Your task to perform on an android device: turn off airplane mode Image 0: 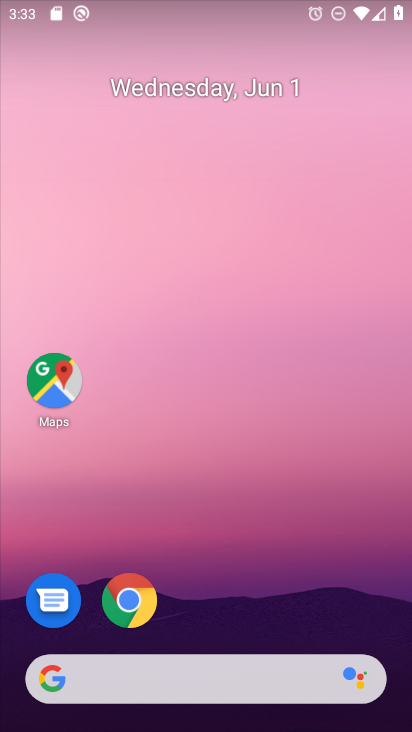
Step 0: drag from (192, 618) to (173, 266)
Your task to perform on an android device: turn off airplane mode Image 1: 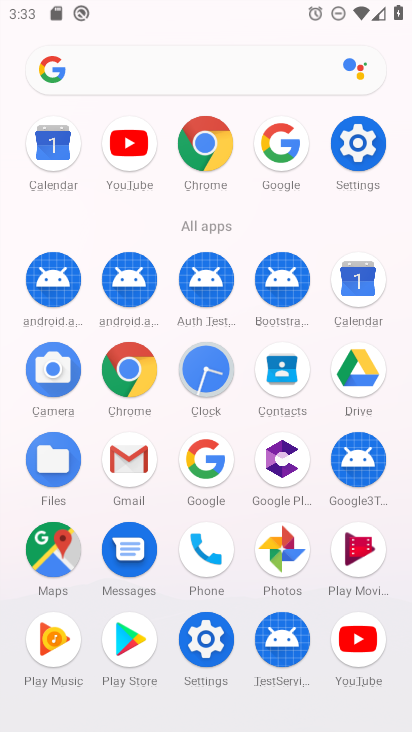
Step 1: click (358, 156)
Your task to perform on an android device: turn off airplane mode Image 2: 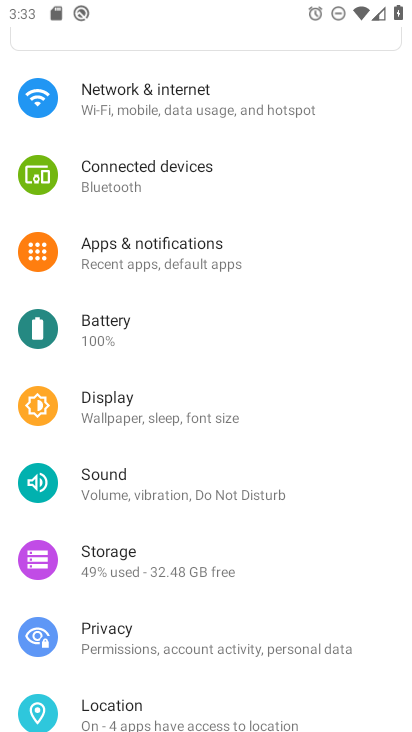
Step 2: click (132, 107)
Your task to perform on an android device: turn off airplane mode Image 3: 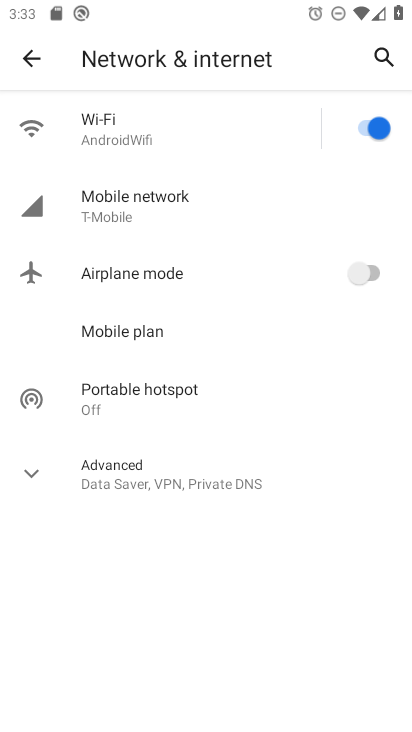
Step 3: task complete